Your task to perform on an android device: Turn on the flashlight Image 0: 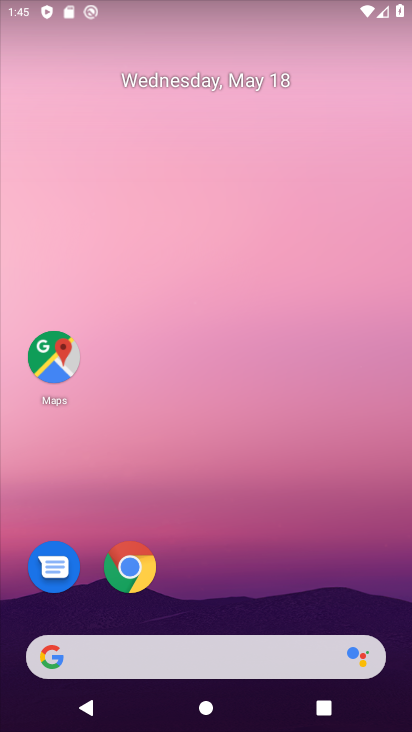
Step 0: drag from (245, 542) to (245, 202)
Your task to perform on an android device: Turn on the flashlight Image 1: 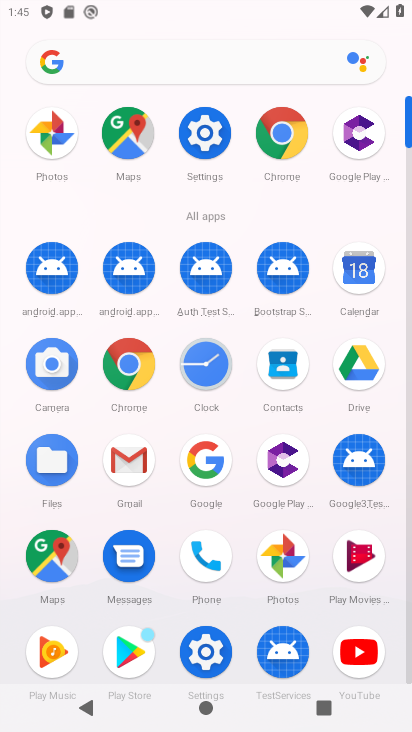
Step 1: click (210, 152)
Your task to perform on an android device: Turn on the flashlight Image 2: 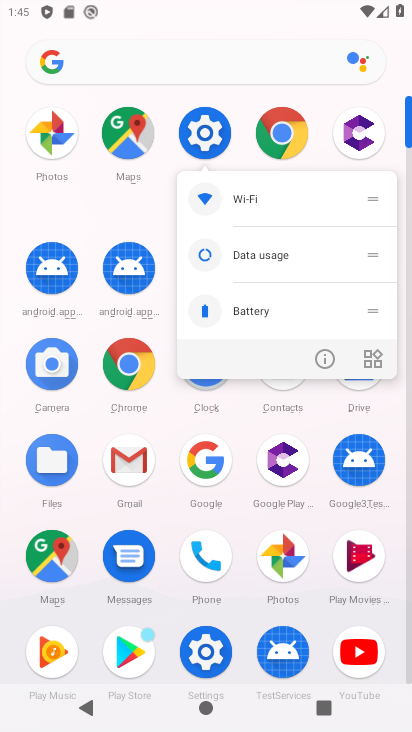
Step 2: click (210, 152)
Your task to perform on an android device: Turn on the flashlight Image 3: 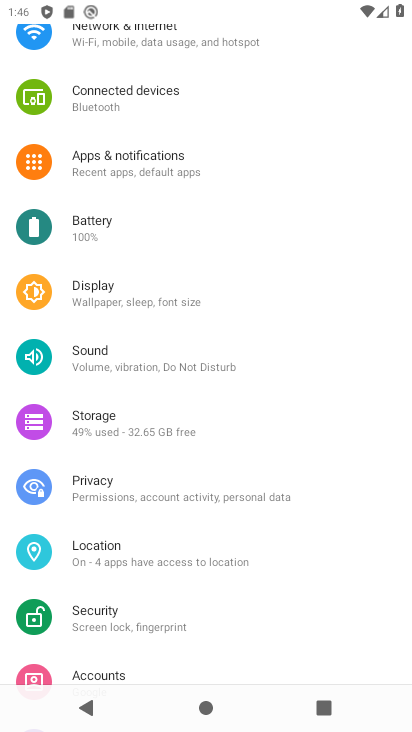
Step 3: task complete